Your task to perform on an android device: Open calendar and show me the fourth week of next month Image 0: 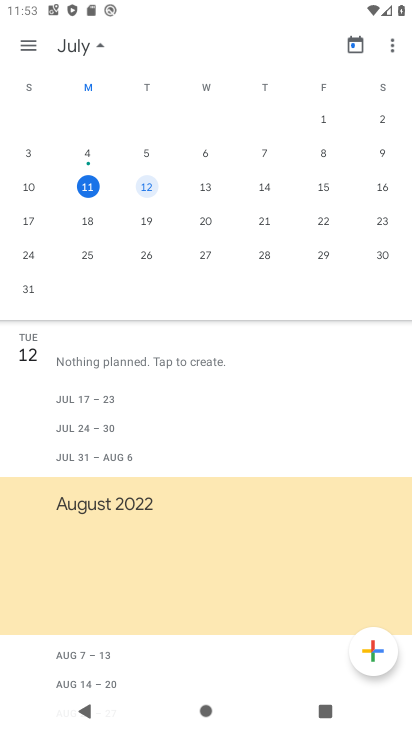
Step 0: press home button
Your task to perform on an android device: Open calendar and show me the fourth week of next month Image 1: 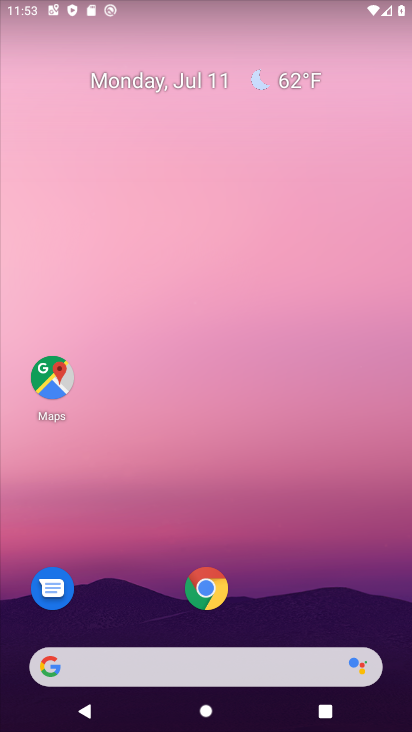
Step 1: drag from (235, 410) to (277, 41)
Your task to perform on an android device: Open calendar and show me the fourth week of next month Image 2: 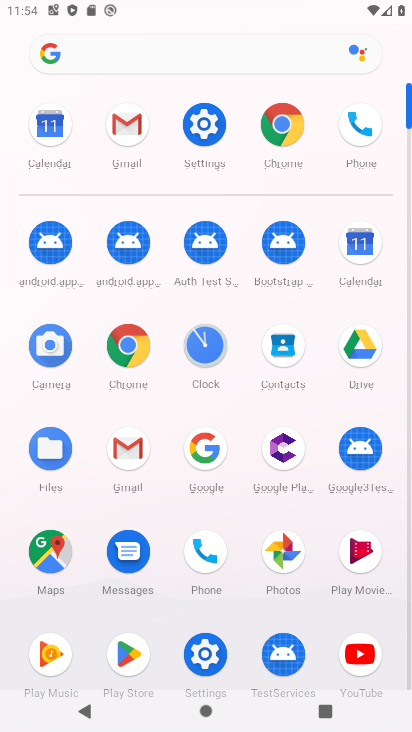
Step 2: click (367, 266)
Your task to perform on an android device: Open calendar and show me the fourth week of next month Image 3: 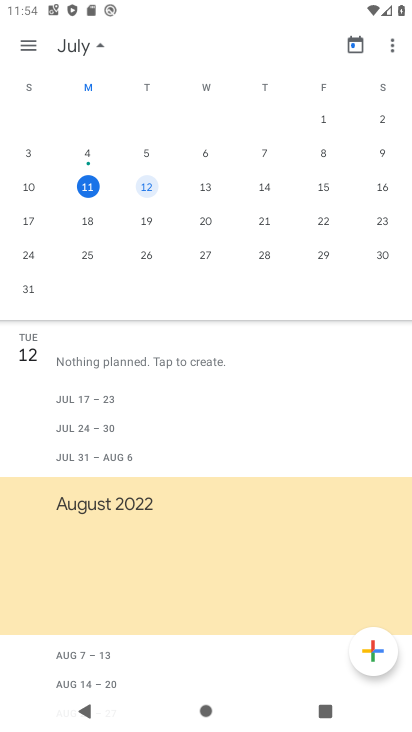
Step 3: drag from (228, 208) to (19, 189)
Your task to perform on an android device: Open calendar and show me the fourth week of next month Image 4: 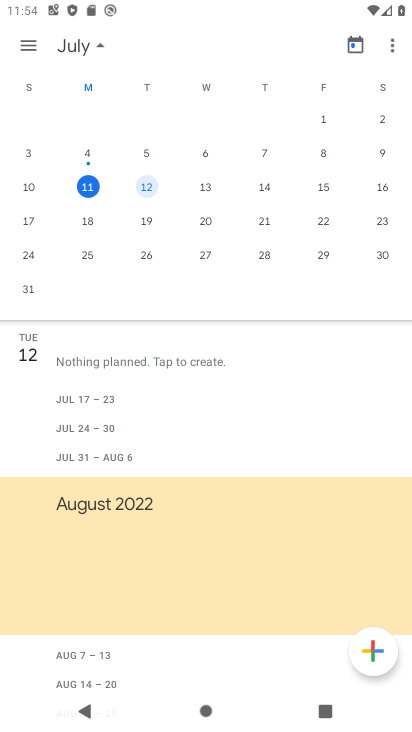
Step 4: drag from (156, 188) to (5, 202)
Your task to perform on an android device: Open calendar and show me the fourth week of next month Image 5: 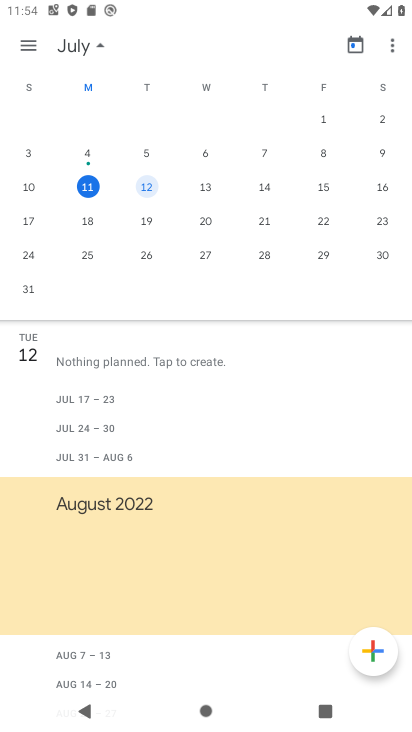
Step 5: drag from (301, 159) to (7, 270)
Your task to perform on an android device: Open calendar and show me the fourth week of next month Image 6: 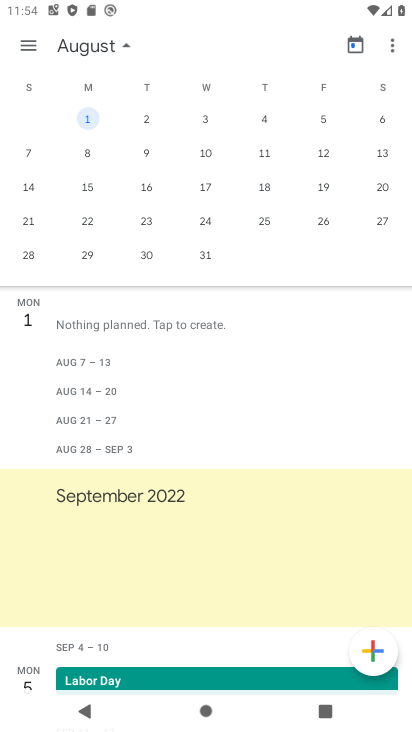
Step 6: click (28, 221)
Your task to perform on an android device: Open calendar and show me the fourth week of next month Image 7: 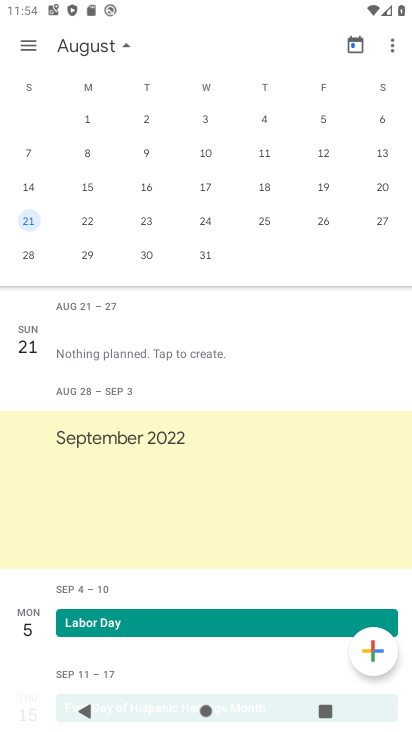
Step 7: task complete